Your task to perform on an android device: Open Google Chrome and click the shortcut for Amazon.com Image 0: 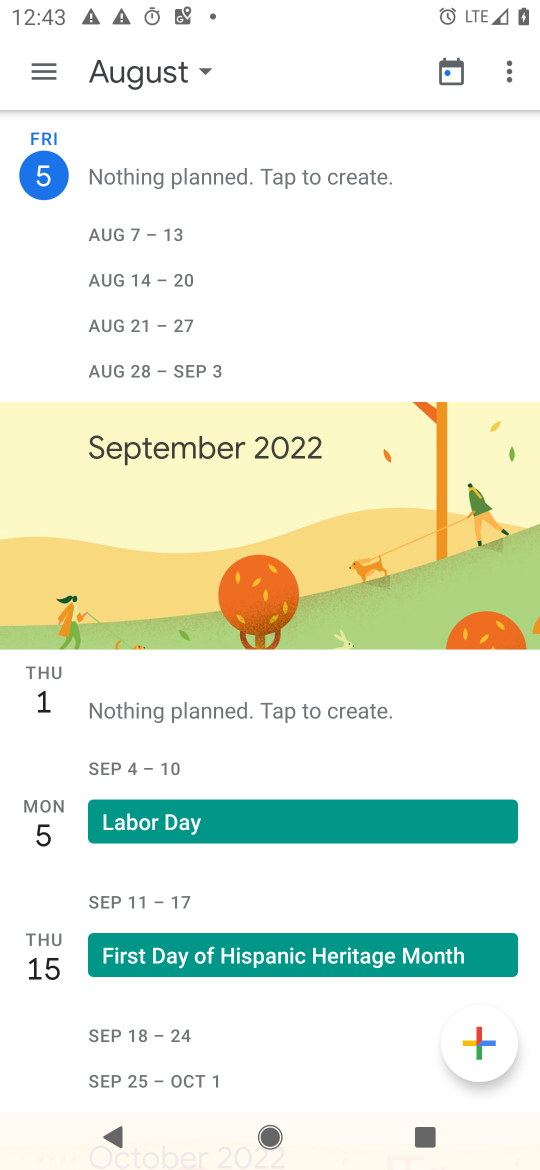
Step 0: press home button
Your task to perform on an android device: Open Google Chrome and click the shortcut for Amazon.com Image 1: 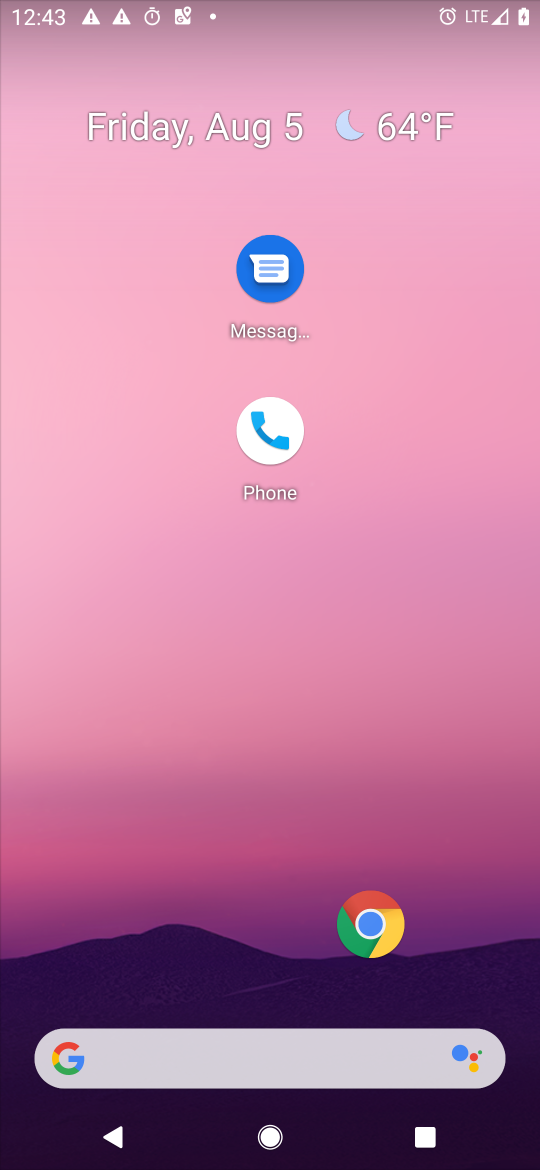
Step 1: drag from (236, 980) to (248, 523)
Your task to perform on an android device: Open Google Chrome and click the shortcut for Amazon.com Image 2: 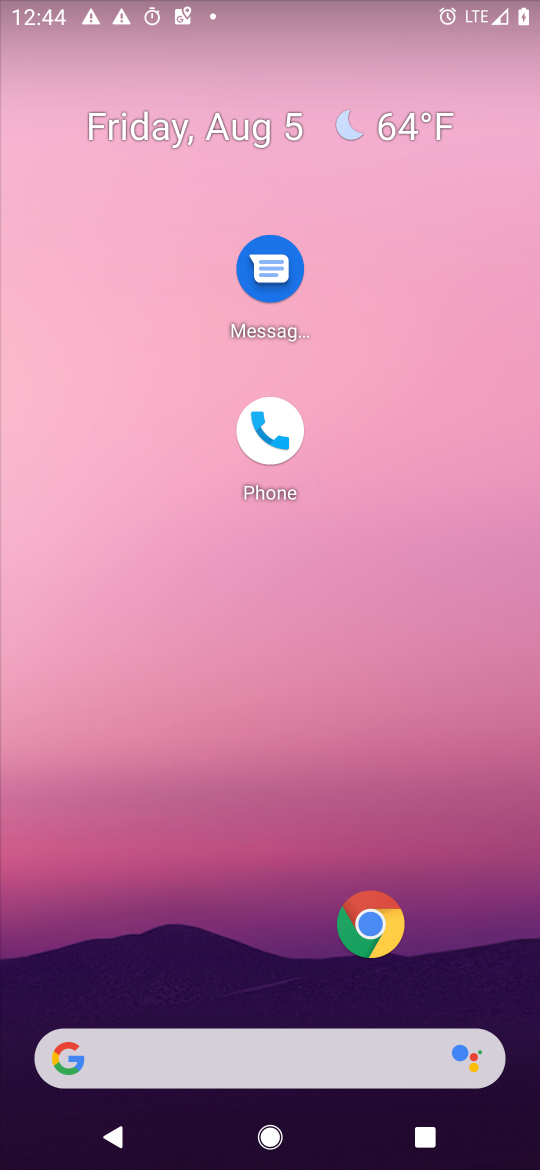
Step 2: drag from (294, 942) to (352, 232)
Your task to perform on an android device: Open Google Chrome and click the shortcut for Amazon.com Image 3: 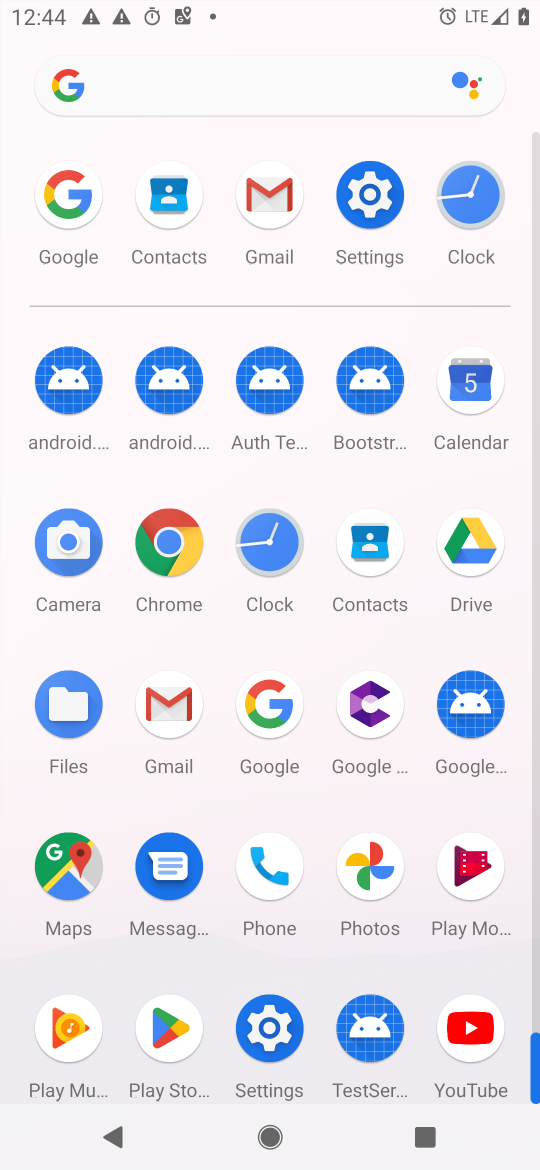
Step 3: click (159, 539)
Your task to perform on an android device: Open Google Chrome and click the shortcut for Amazon.com Image 4: 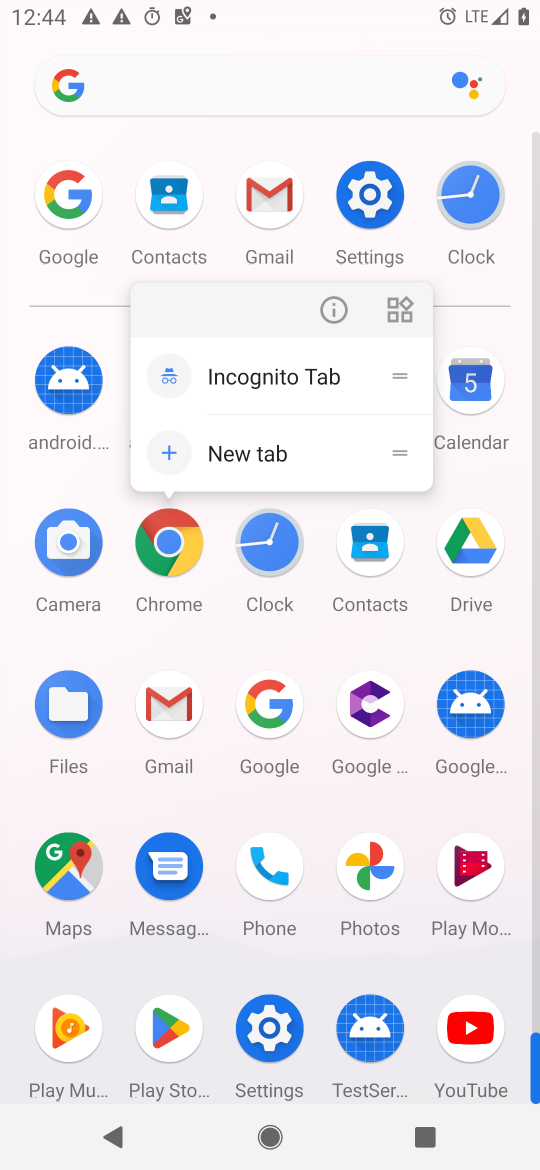
Step 4: click (334, 309)
Your task to perform on an android device: Open Google Chrome and click the shortcut for Amazon.com Image 5: 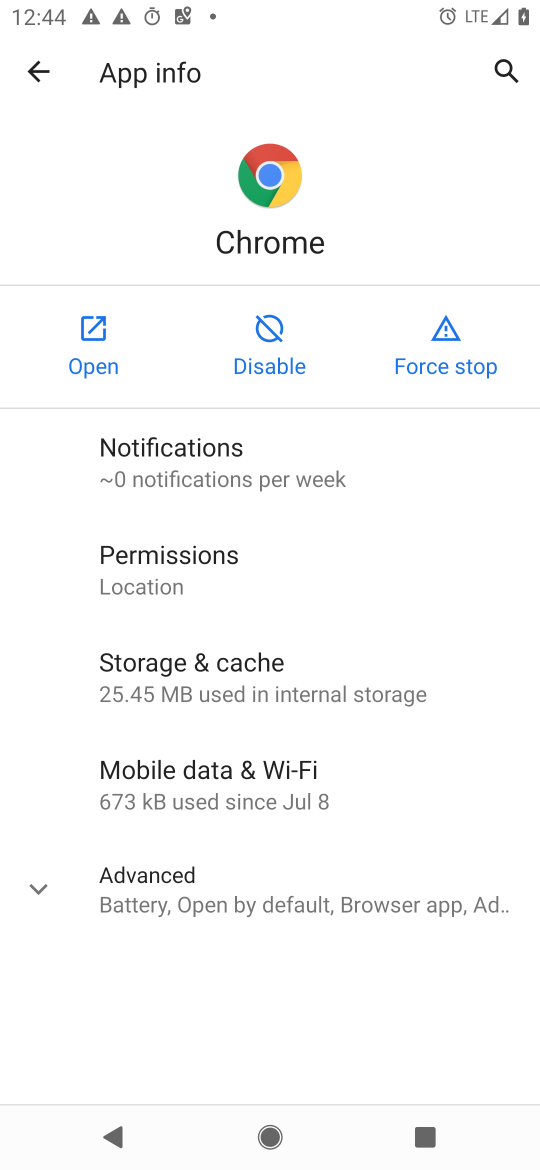
Step 5: click (80, 319)
Your task to perform on an android device: Open Google Chrome and click the shortcut for Amazon.com Image 6: 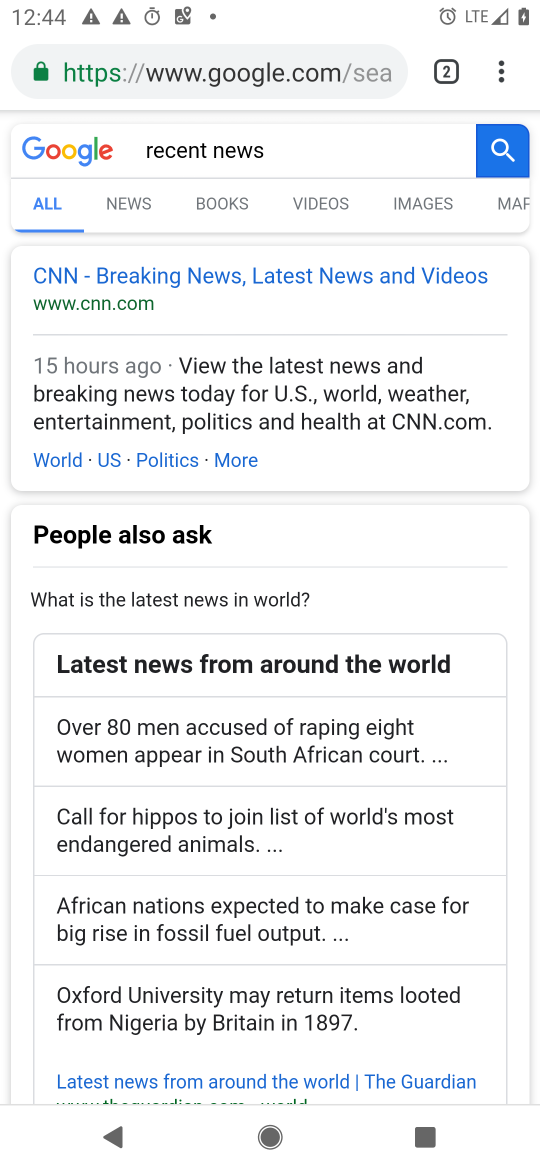
Step 6: click (273, 78)
Your task to perform on an android device: Open Google Chrome and click the shortcut for Amazon.com Image 7: 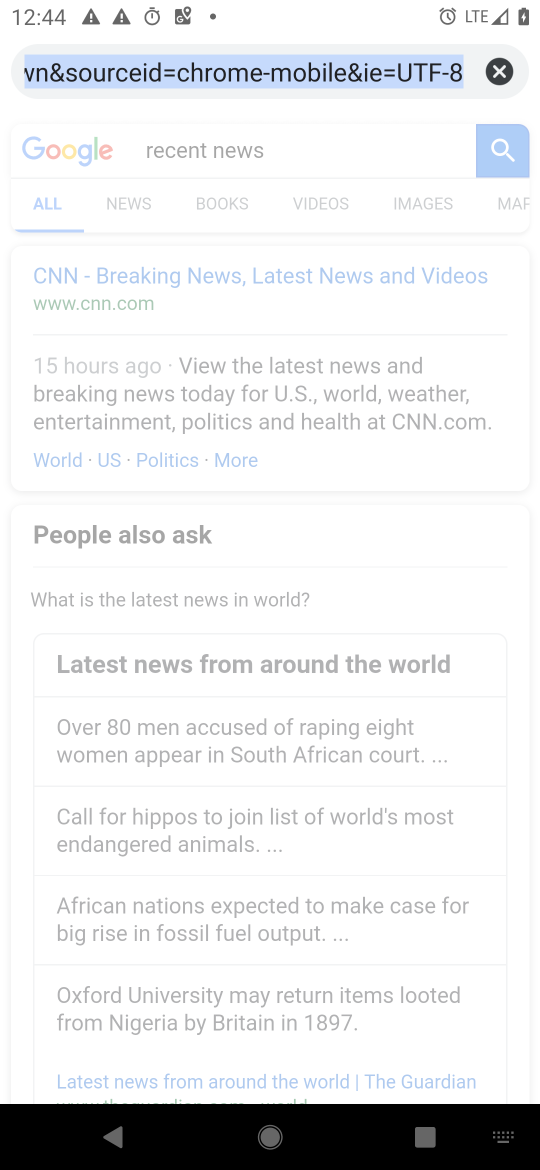
Step 7: click (391, 501)
Your task to perform on an android device: Open Google Chrome and click the shortcut for Amazon.com Image 8: 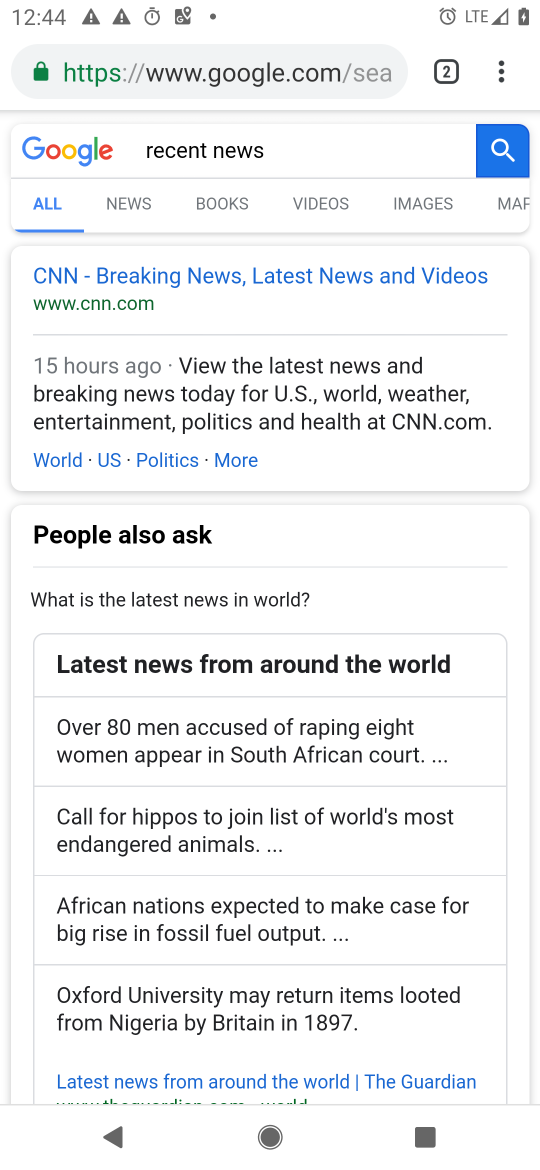
Step 8: click (448, 63)
Your task to perform on an android device: Open Google Chrome and click the shortcut for Amazon.com Image 9: 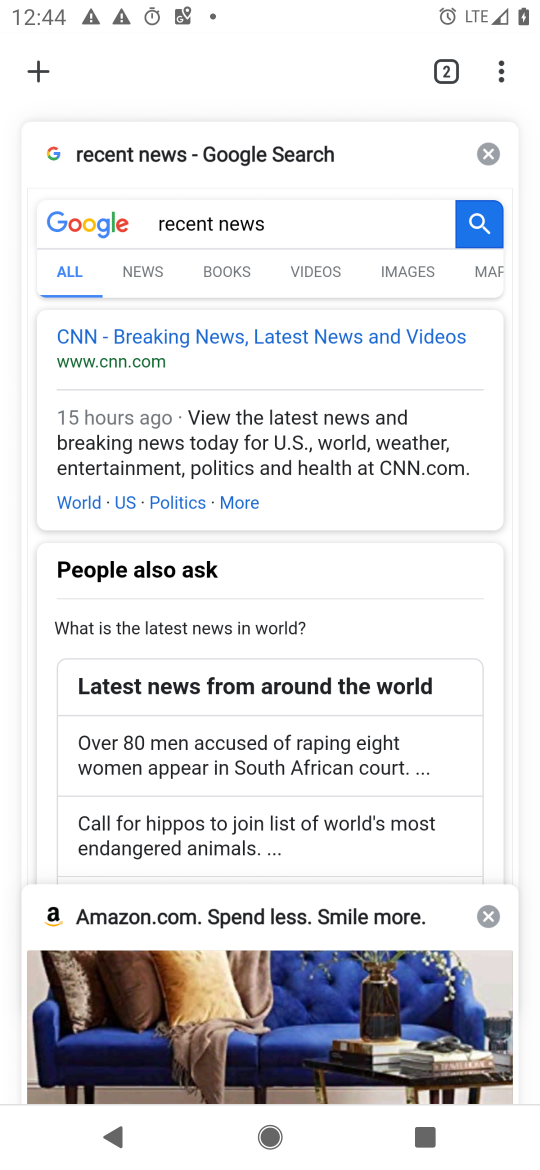
Step 9: click (24, 74)
Your task to perform on an android device: Open Google Chrome and click the shortcut for Amazon.com Image 10: 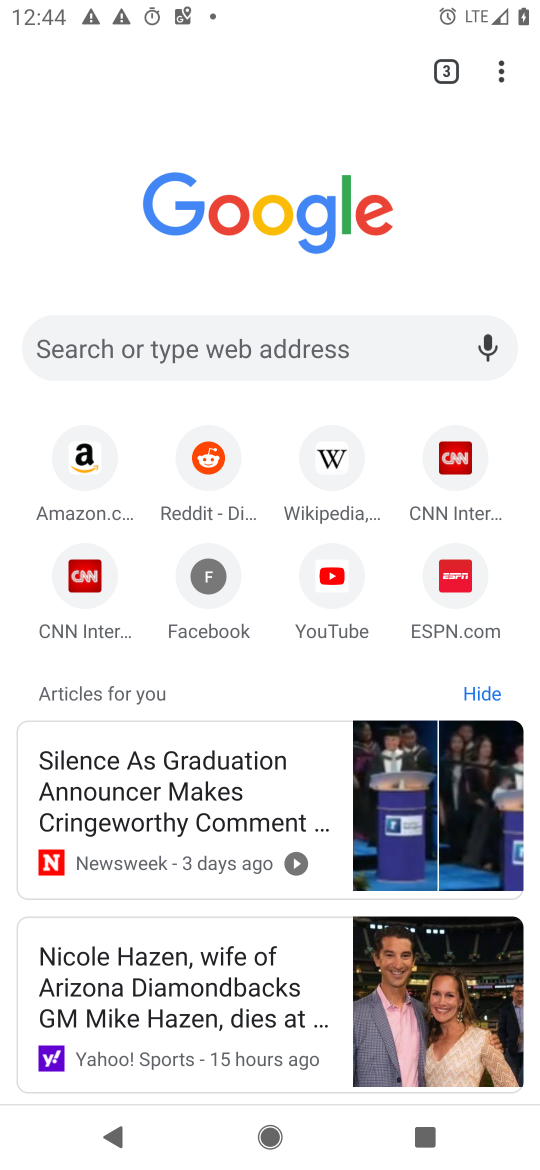
Step 10: click (93, 462)
Your task to perform on an android device: Open Google Chrome and click the shortcut for Amazon.com Image 11: 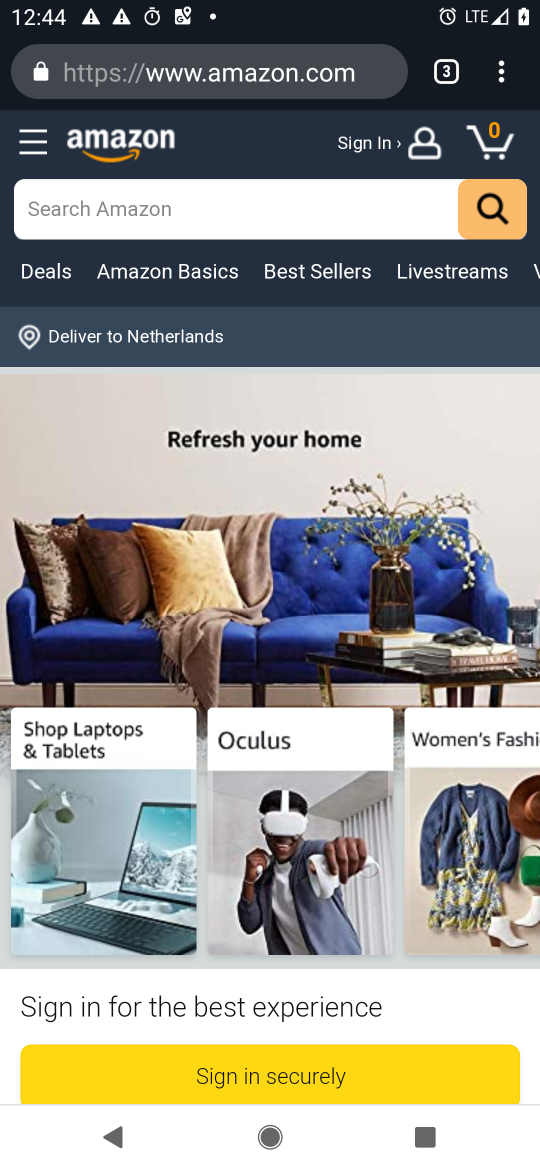
Step 11: task complete